Your task to perform on an android device: open chrome and create a bookmark for the current page Image 0: 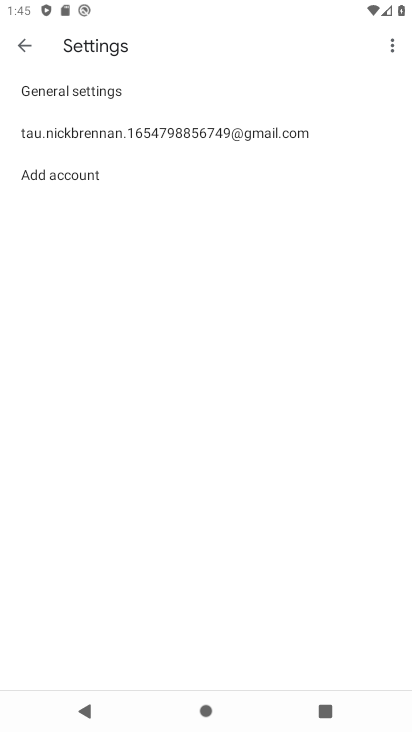
Step 0: press home button
Your task to perform on an android device: open chrome and create a bookmark for the current page Image 1: 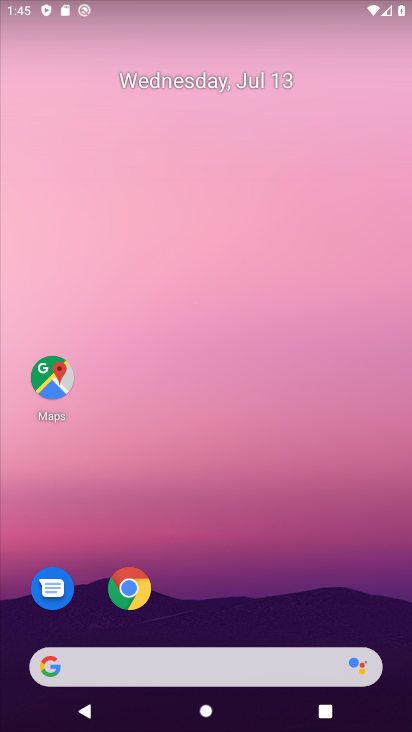
Step 1: drag from (205, 657) to (271, 110)
Your task to perform on an android device: open chrome and create a bookmark for the current page Image 2: 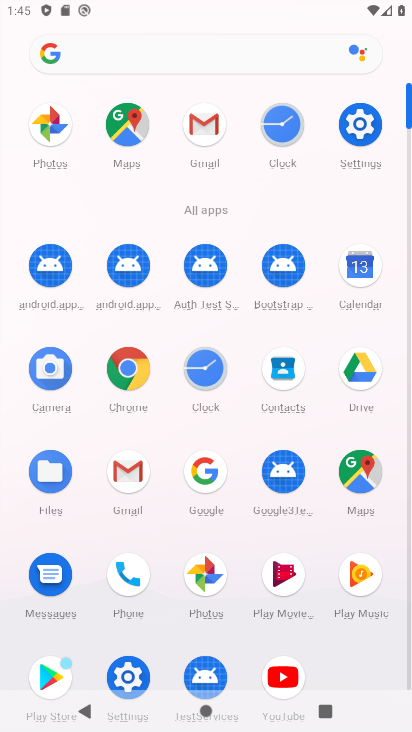
Step 2: click (133, 369)
Your task to perform on an android device: open chrome and create a bookmark for the current page Image 3: 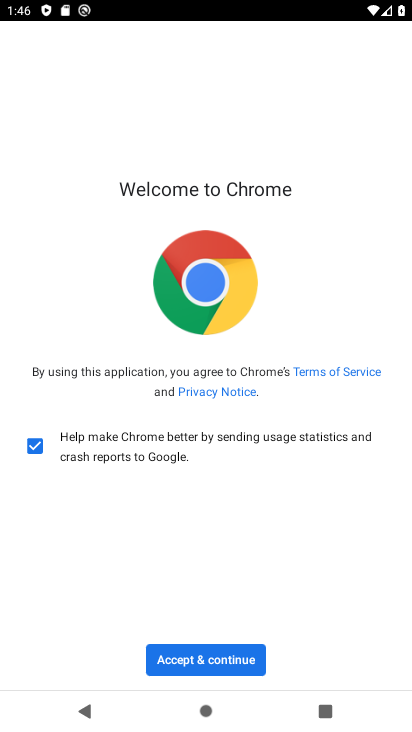
Step 3: click (240, 663)
Your task to perform on an android device: open chrome and create a bookmark for the current page Image 4: 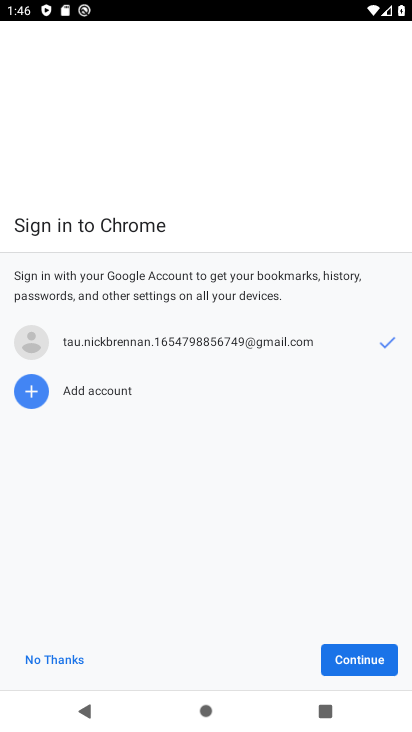
Step 4: click (385, 654)
Your task to perform on an android device: open chrome and create a bookmark for the current page Image 5: 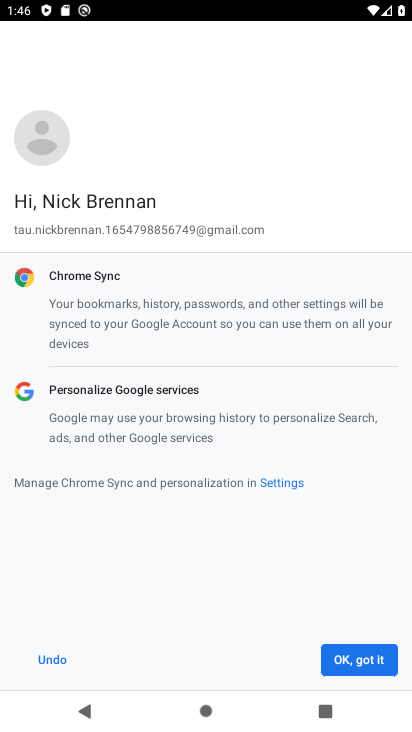
Step 5: click (369, 661)
Your task to perform on an android device: open chrome and create a bookmark for the current page Image 6: 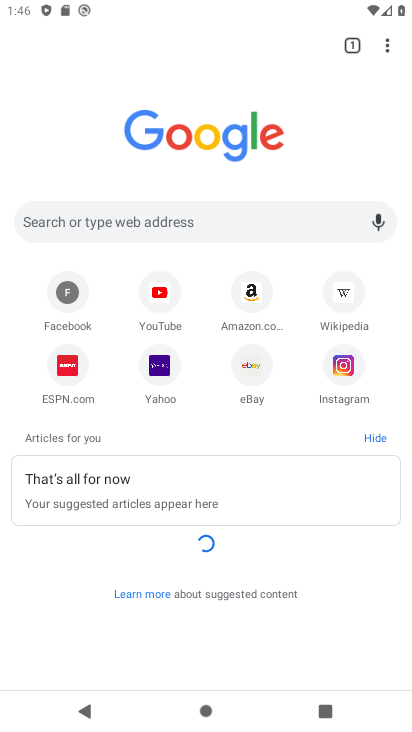
Step 6: task complete